Your task to perform on an android device: change text size in settings app Image 0: 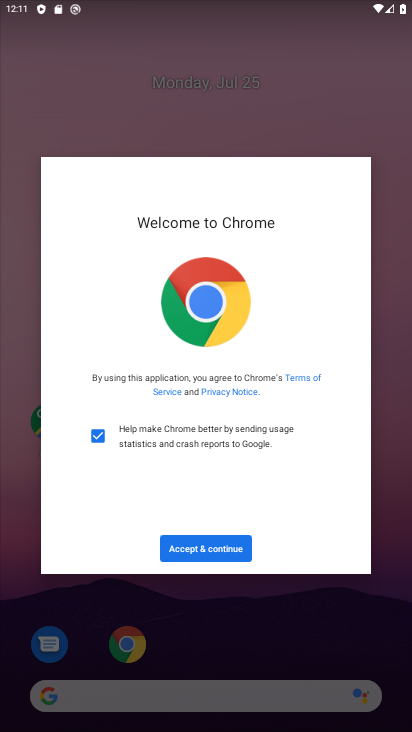
Step 0: press home button
Your task to perform on an android device: change text size in settings app Image 1: 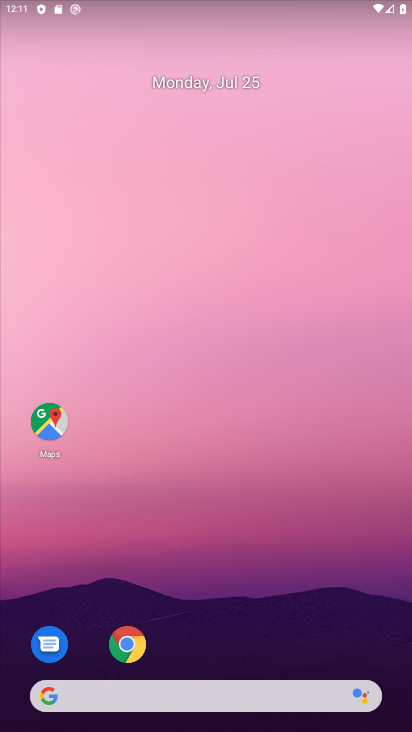
Step 1: drag from (340, 585) to (110, 18)
Your task to perform on an android device: change text size in settings app Image 2: 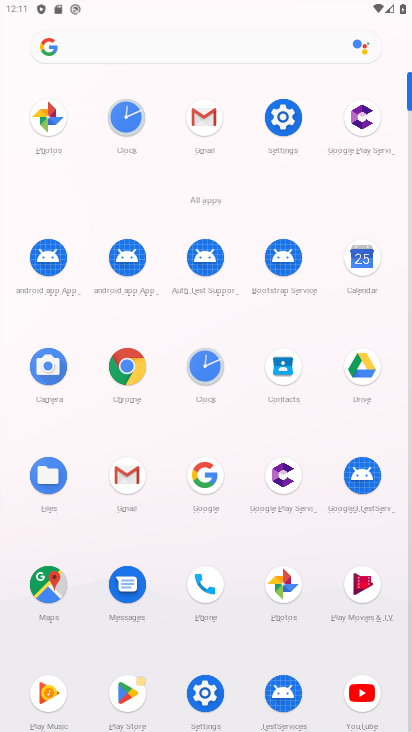
Step 2: click (207, 682)
Your task to perform on an android device: change text size in settings app Image 3: 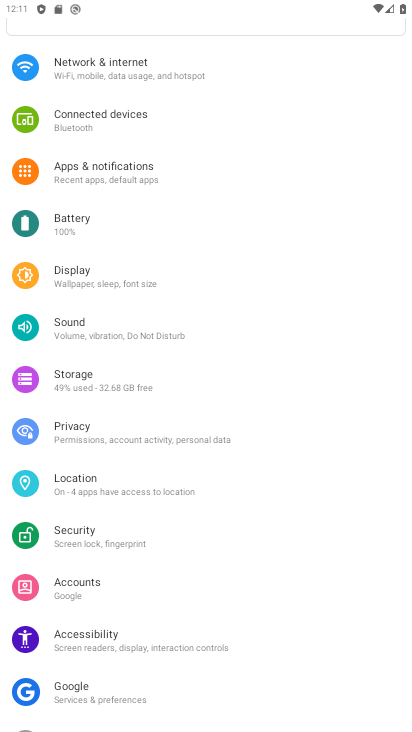
Step 3: click (98, 285)
Your task to perform on an android device: change text size in settings app Image 4: 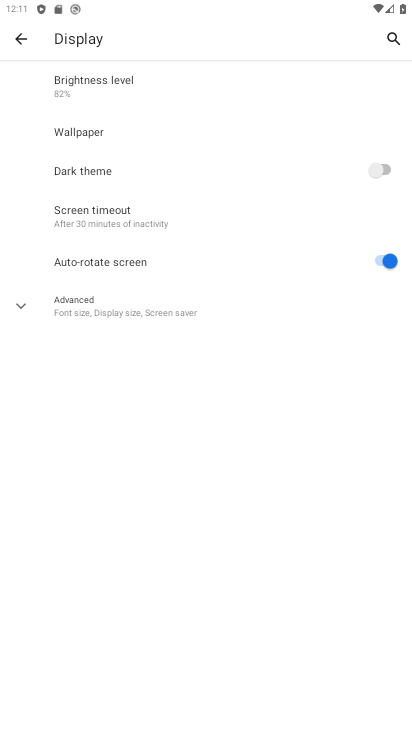
Step 4: click (53, 300)
Your task to perform on an android device: change text size in settings app Image 5: 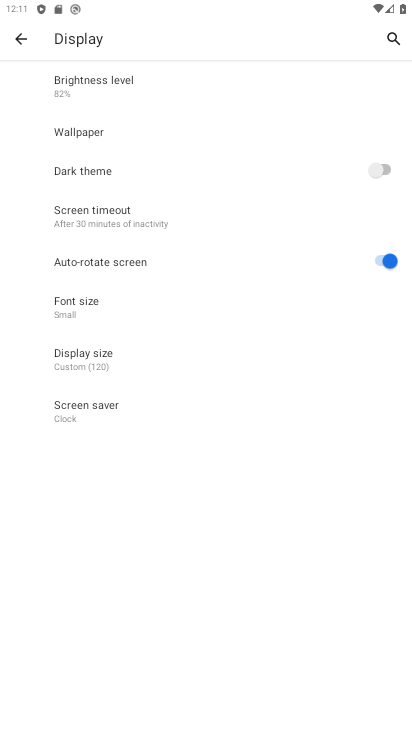
Step 5: click (75, 316)
Your task to perform on an android device: change text size in settings app Image 6: 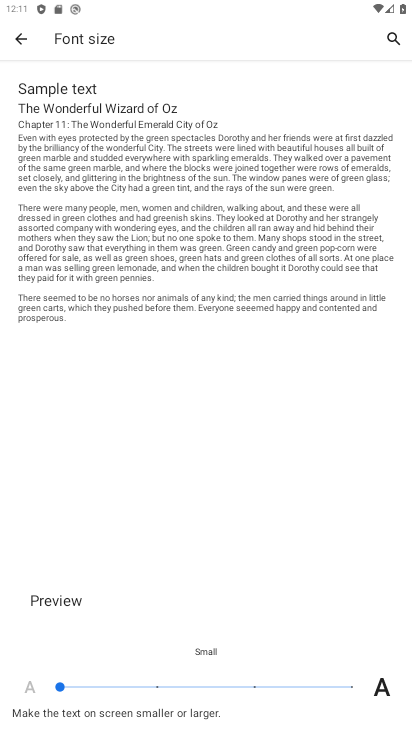
Step 6: click (349, 684)
Your task to perform on an android device: change text size in settings app Image 7: 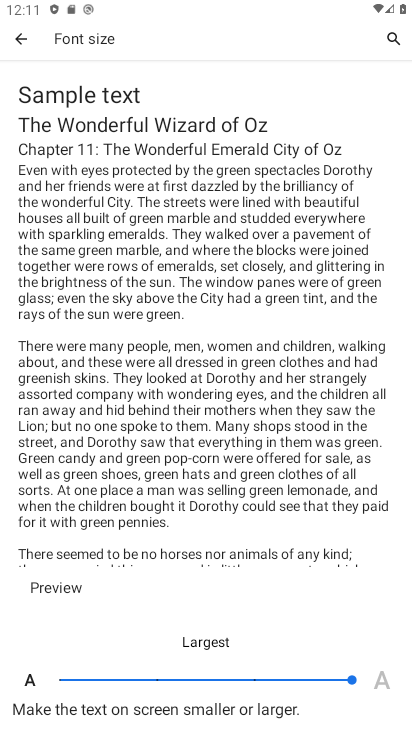
Step 7: task complete